Your task to perform on an android device: Add dell xps to the cart on newegg.com, then select checkout. Image 0: 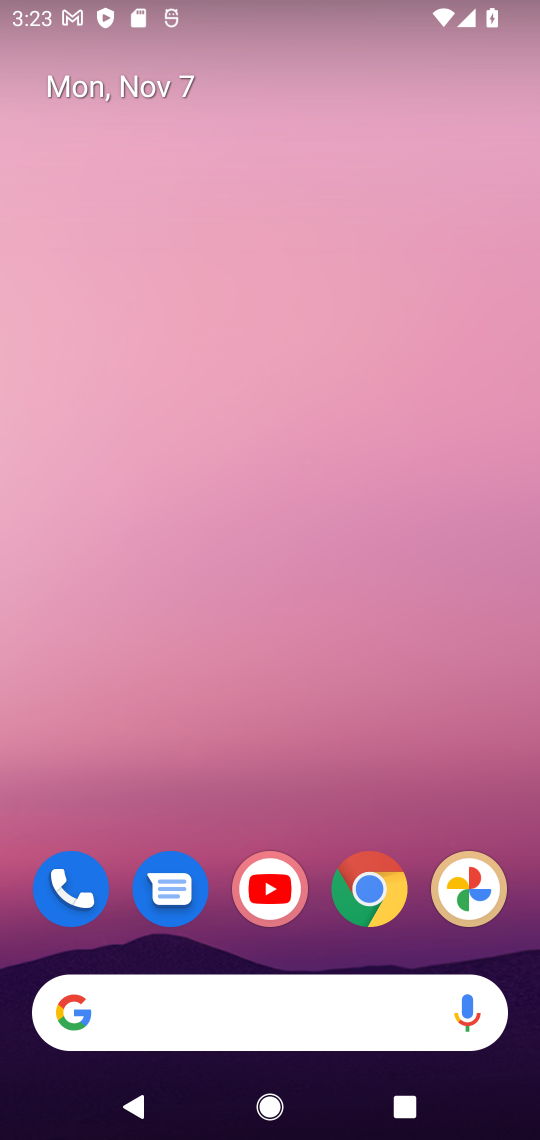
Step 0: click (381, 893)
Your task to perform on an android device: Add dell xps to the cart on newegg.com, then select checkout. Image 1: 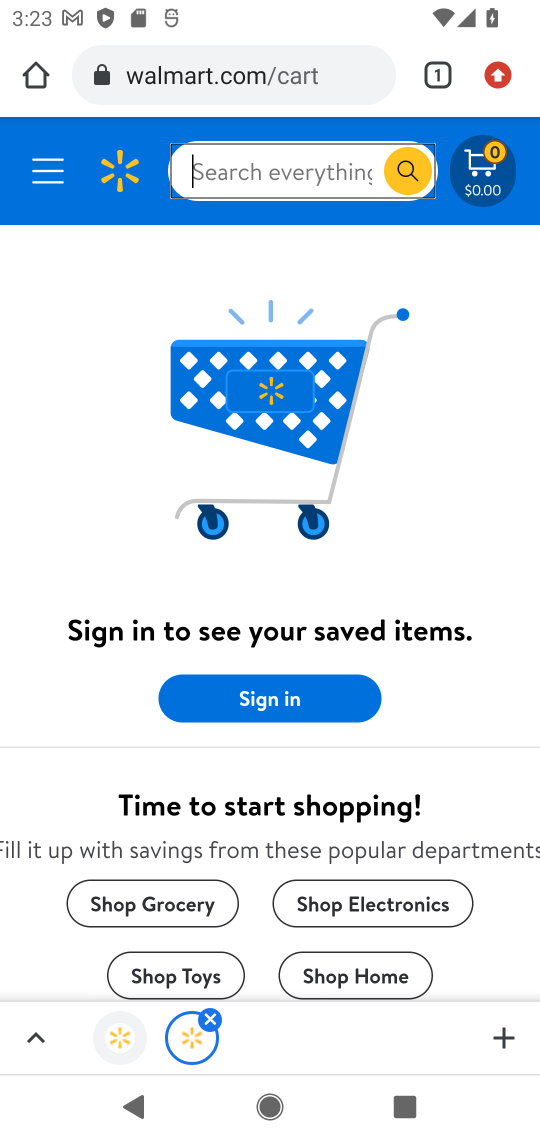
Step 1: click (270, 84)
Your task to perform on an android device: Add dell xps to the cart on newegg.com, then select checkout. Image 2: 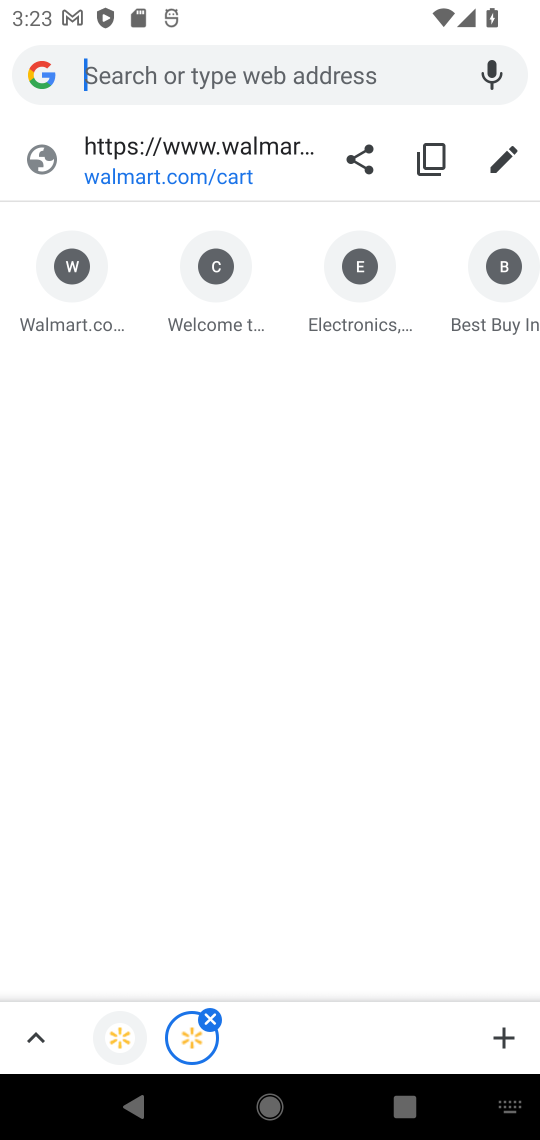
Step 2: type "newegg.com"
Your task to perform on an android device: Add dell xps to the cart on newegg.com, then select checkout. Image 3: 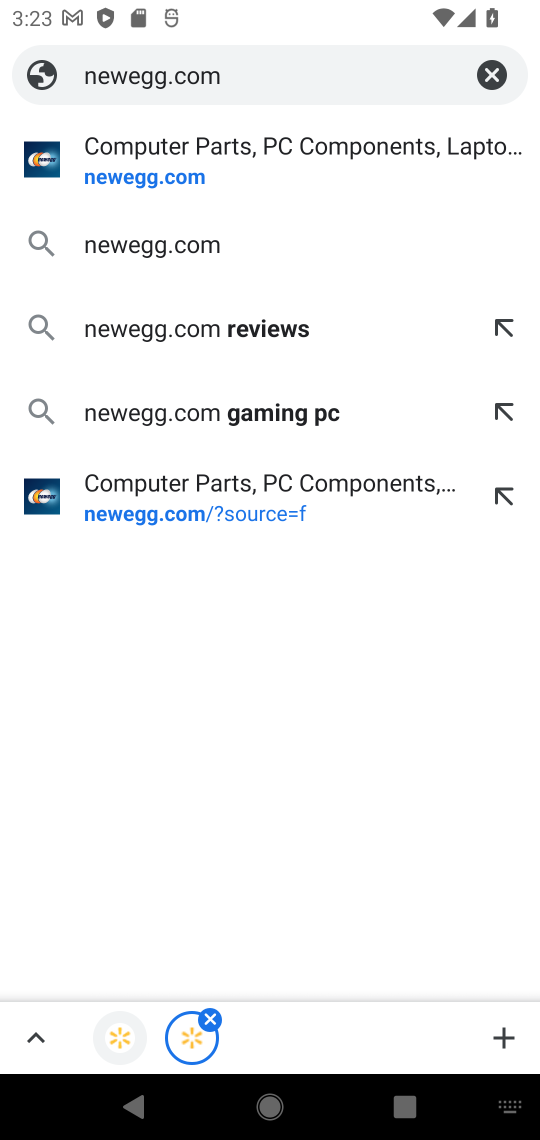
Step 3: click (188, 252)
Your task to perform on an android device: Add dell xps to the cart on newegg.com, then select checkout. Image 4: 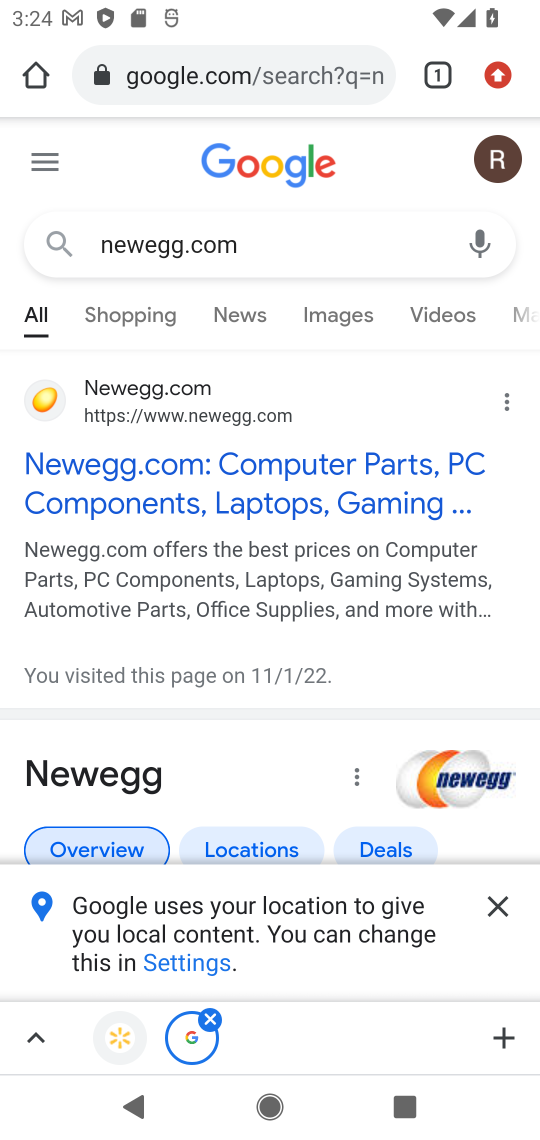
Step 4: click (179, 516)
Your task to perform on an android device: Add dell xps to the cart on newegg.com, then select checkout. Image 5: 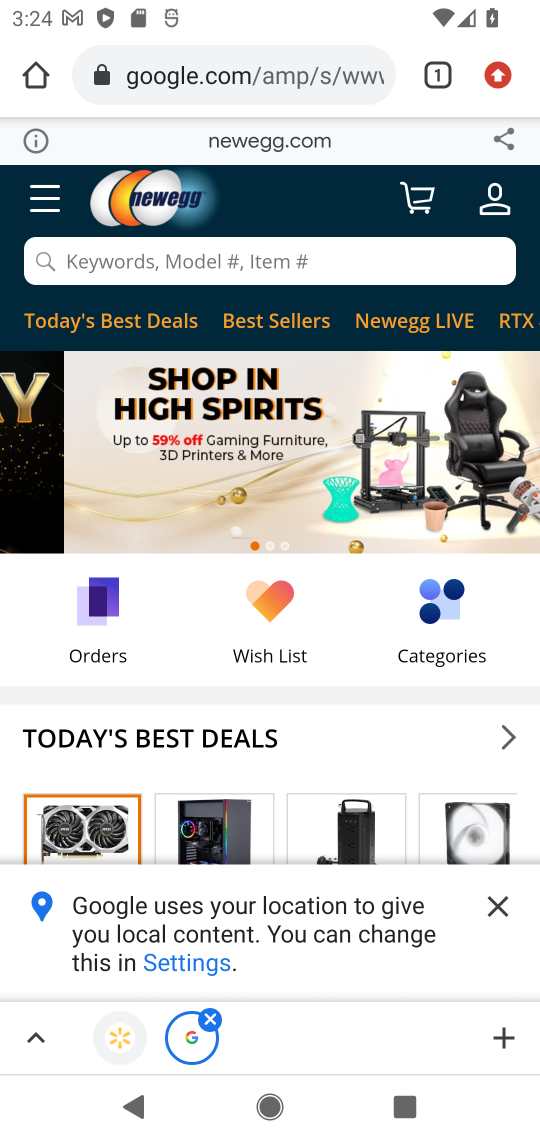
Step 5: click (302, 259)
Your task to perform on an android device: Add dell xps to the cart on newegg.com, then select checkout. Image 6: 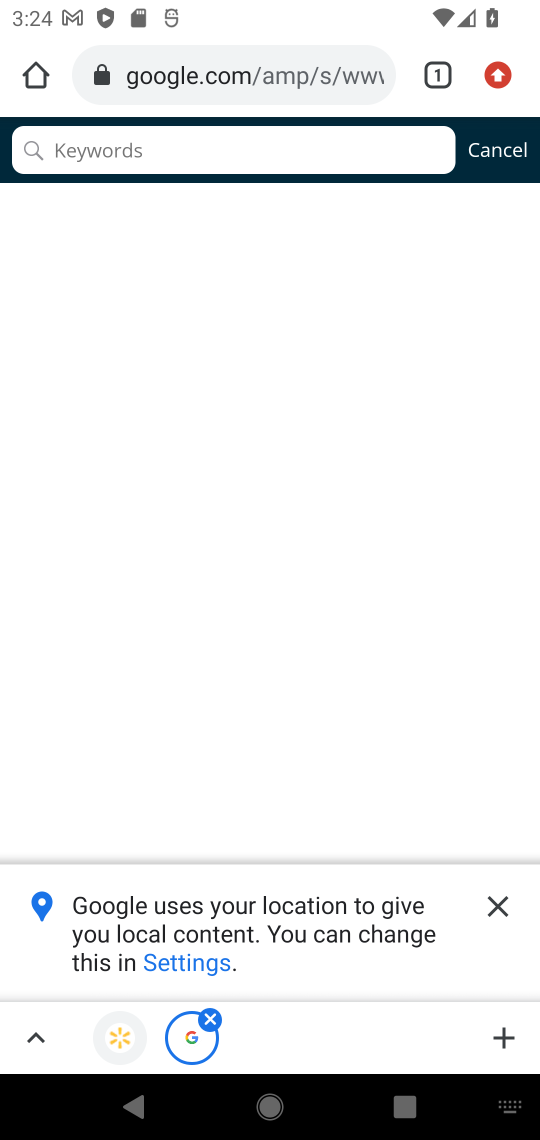
Step 6: type "dell xps"
Your task to perform on an android device: Add dell xps to the cart on newegg.com, then select checkout. Image 7: 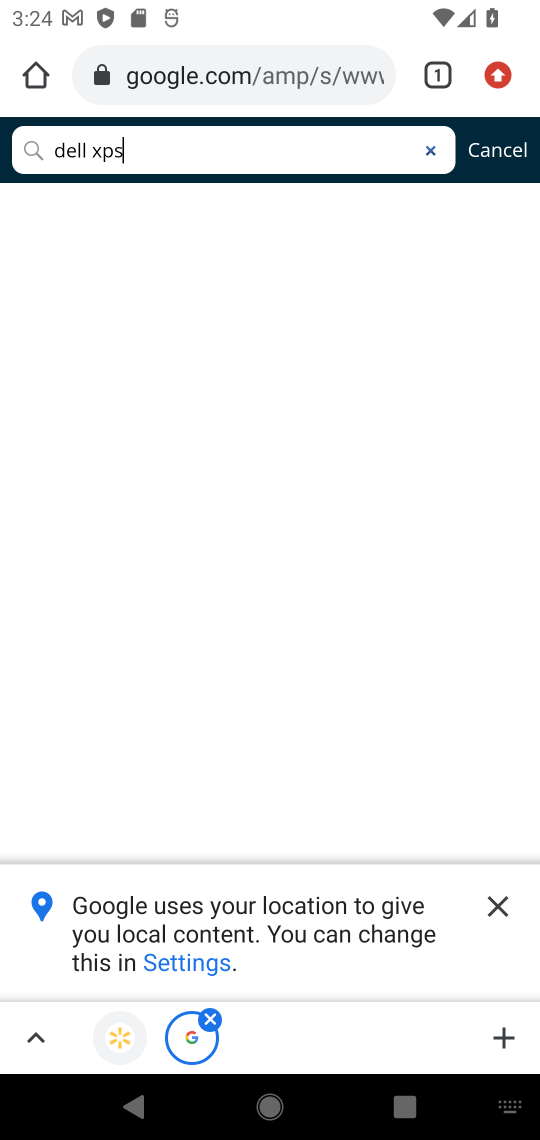
Step 7: press enter
Your task to perform on an android device: Add dell xps to the cart on newegg.com, then select checkout. Image 8: 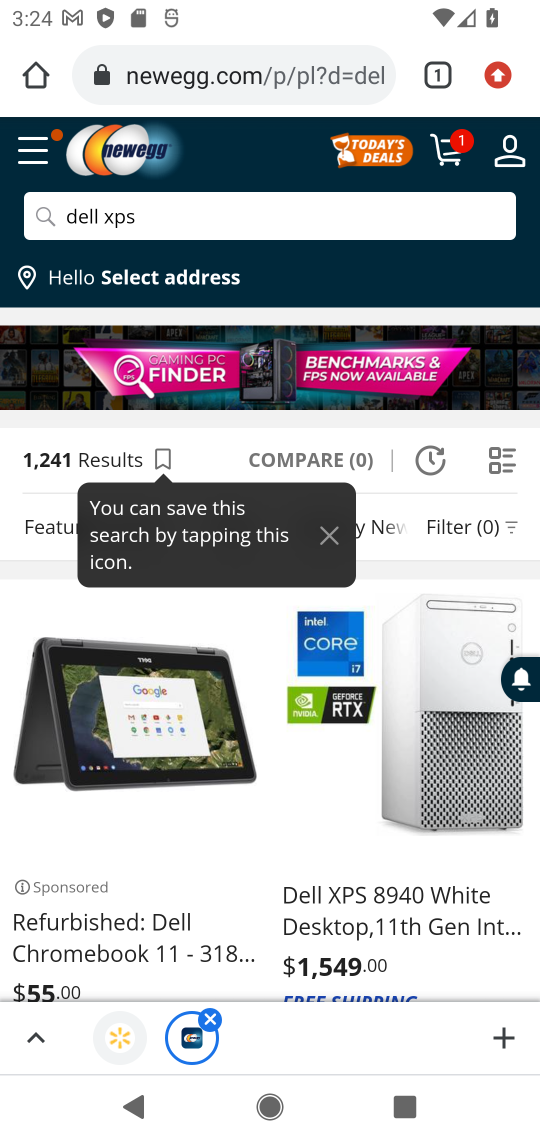
Step 8: click (408, 908)
Your task to perform on an android device: Add dell xps to the cart on newegg.com, then select checkout. Image 9: 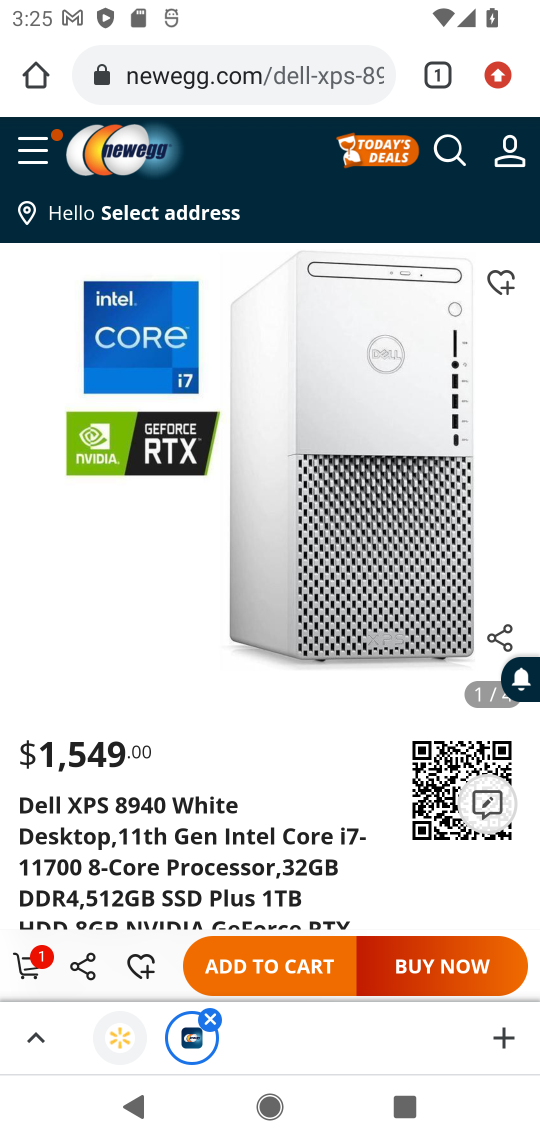
Step 9: click (306, 966)
Your task to perform on an android device: Add dell xps to the cart on newegg.com, then select checkout. Image 10: 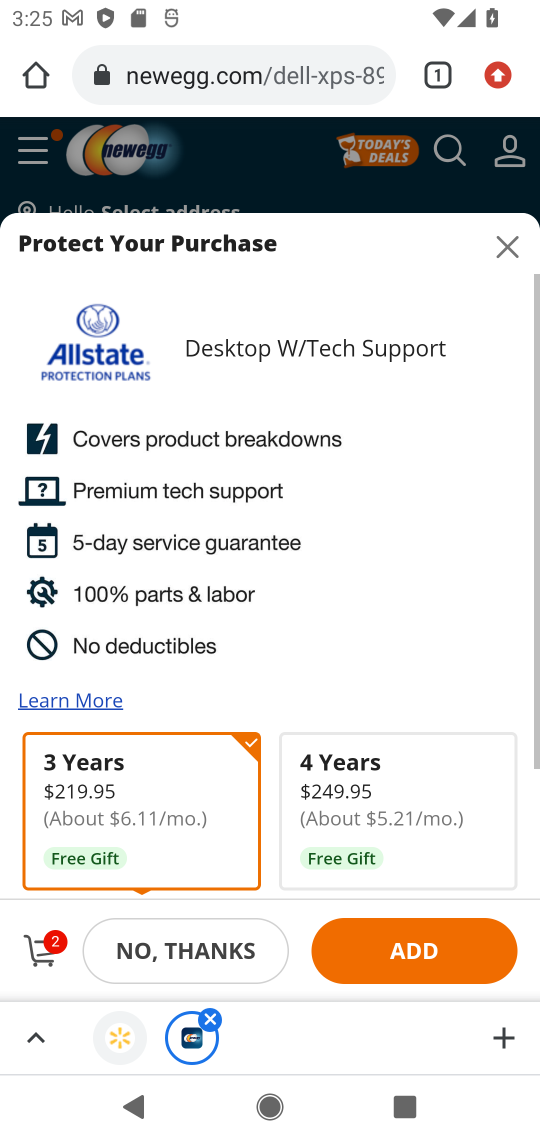
Step 10: click (512, 249)
Your task to perform on an android device: Add dell xps to the cart on newegg.com, then select checkout. Image 11: 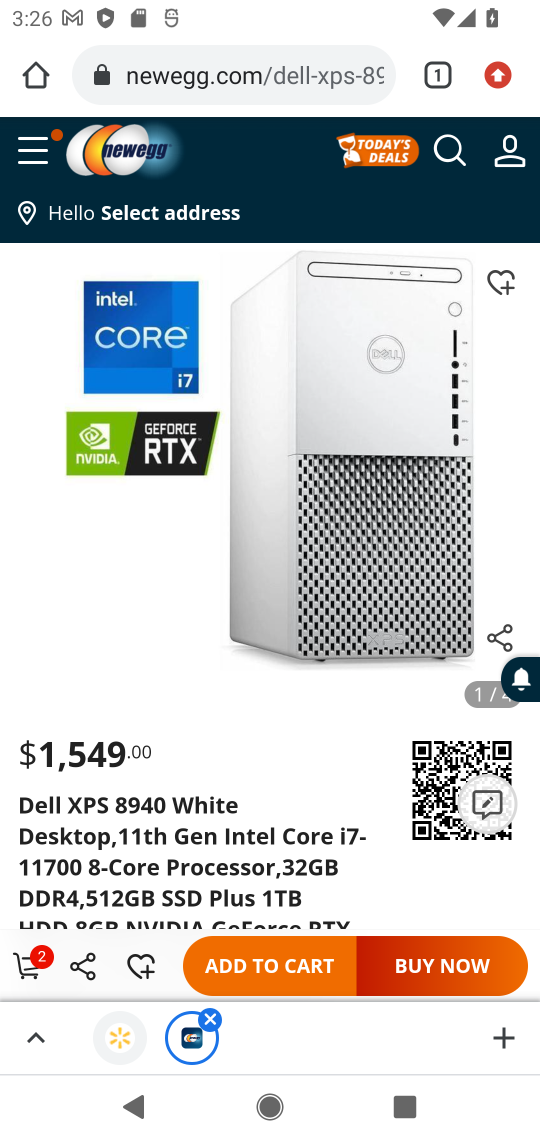
Step 11: click (311, 951)
Your task to perform on an android device: Add dell xps to the cart on newegg.com, then select checkout. Image 12: 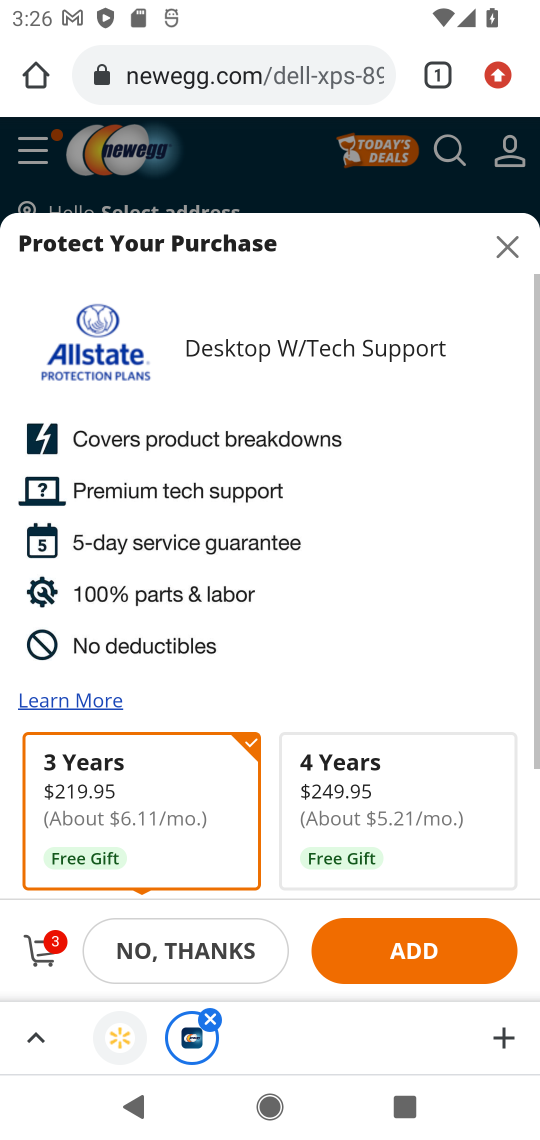
Step 12: click (507, 250)
Your task to perform on an android device: Add dell xps to the cart on newegg.com, then select checkout. Image 13: 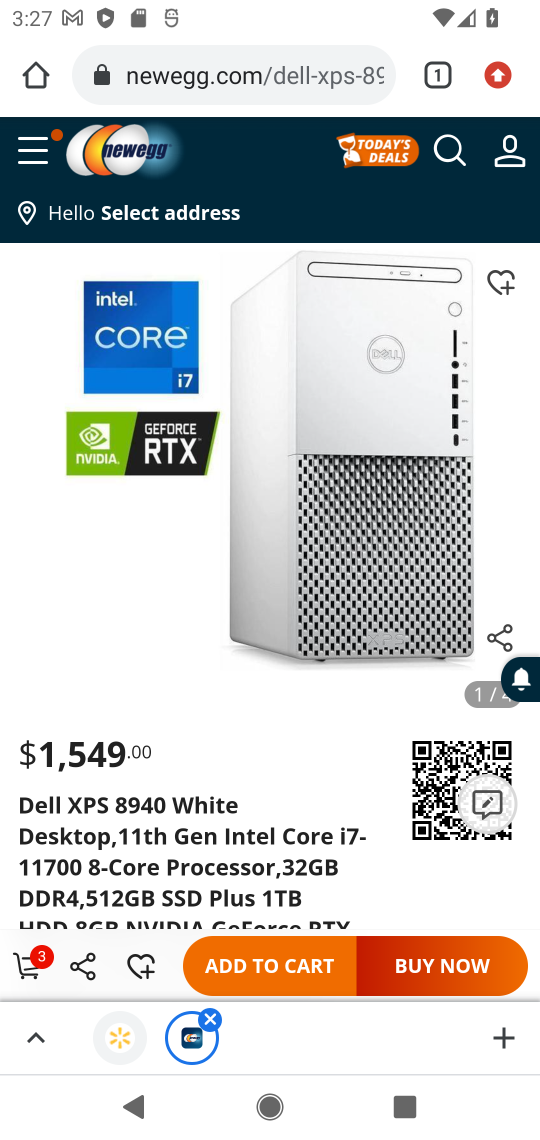
Step 13: click (36, 980)
Your task to perform on an android device: Add dell xps to the cart on newegg.com, then select checkout. Image 14: 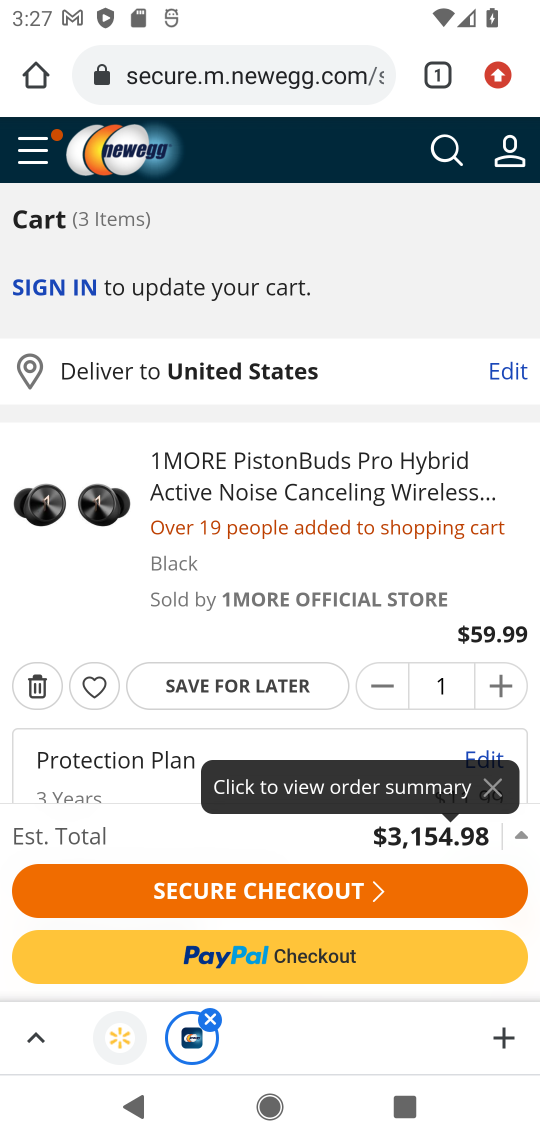
Step 14: click (312, 883)
Your task to perform on an android device: Add dell xps to the cart on newegg.com, then select checkout. Image 15: 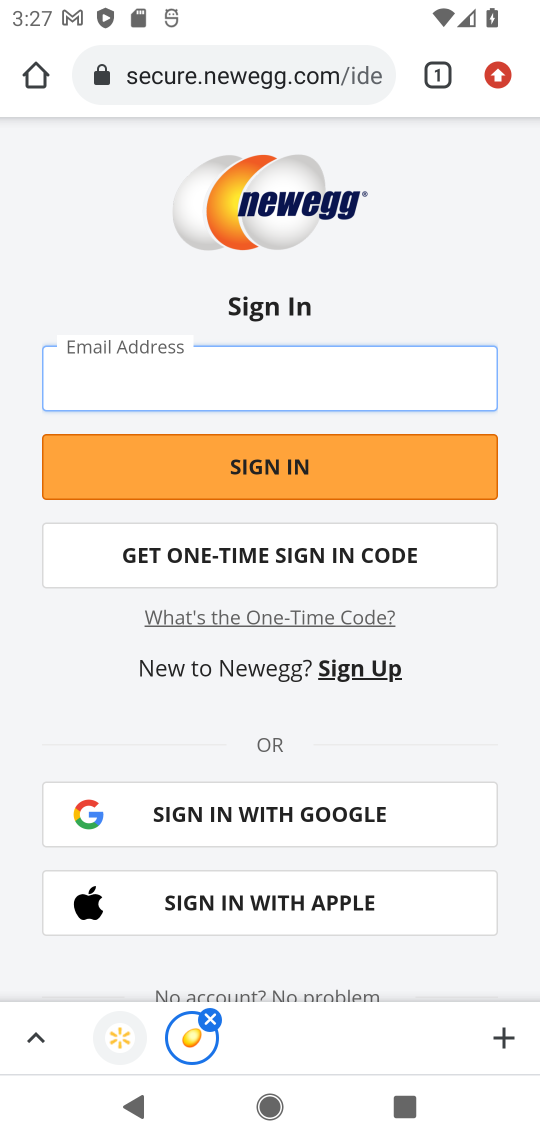
Step 15: task complete